Your task to perform on an android device: turn on location history Image 0: 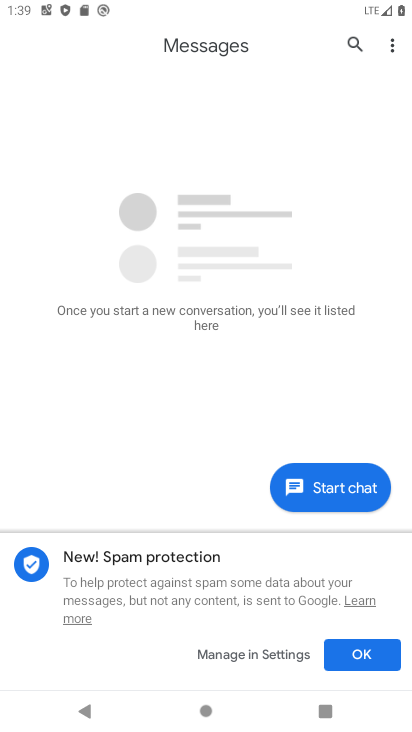
Step 0: press home button
Your task to perform on an android device: turn on location history Image 1: 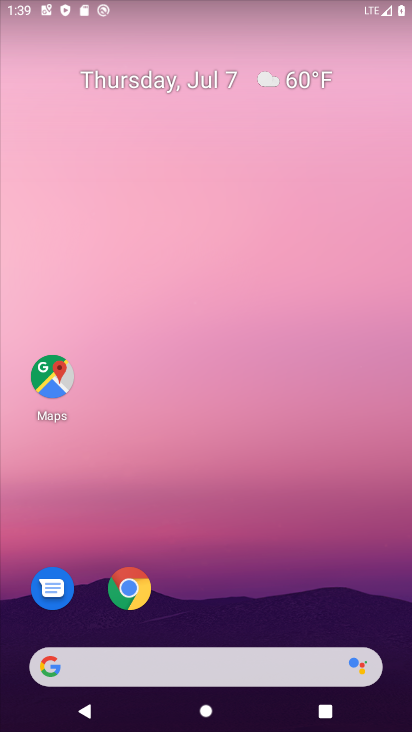
Step 1: drag from (247, 543) to (252, 150)
Your task to perform on an android device: turn on location history Image 2: 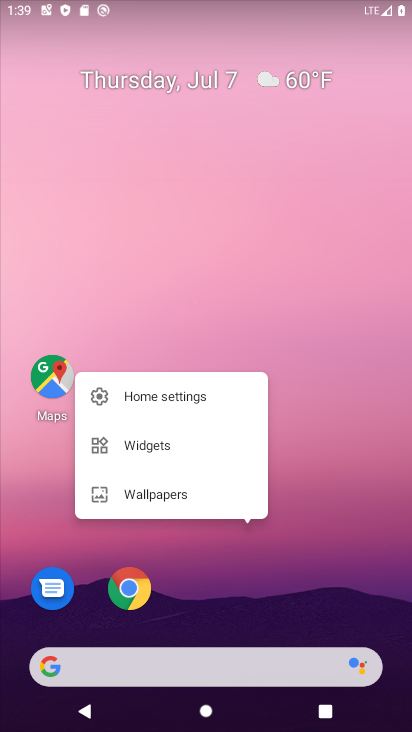
Step 2: click (379, 509)
Your task to perform on an android device: turn on location history Image 3: 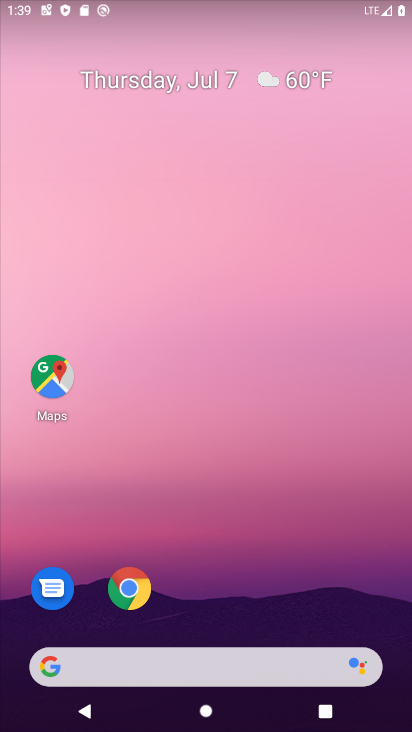
Step 3: drag from (264, 616) to (216, 206)
Your task to perform on an android device: turn on location history Image 4: 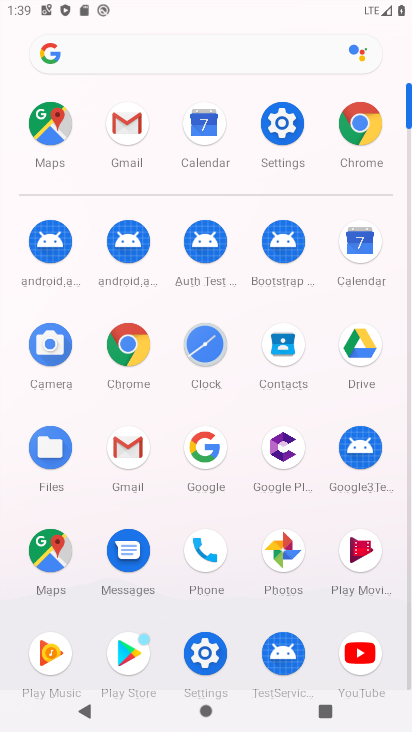
Step 4: click (269, 116)
Your task to perform on an android device: turn on location history Image 5: 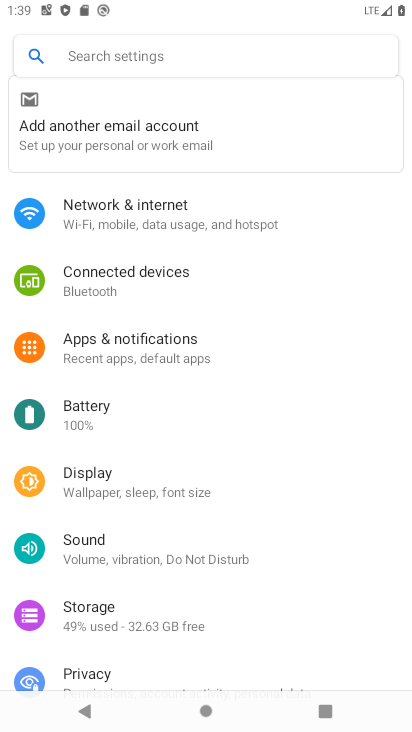
Step 5: drag from (164, 579) to (152, 309)
Your task to perform on an android device: turn on location history Image 6: 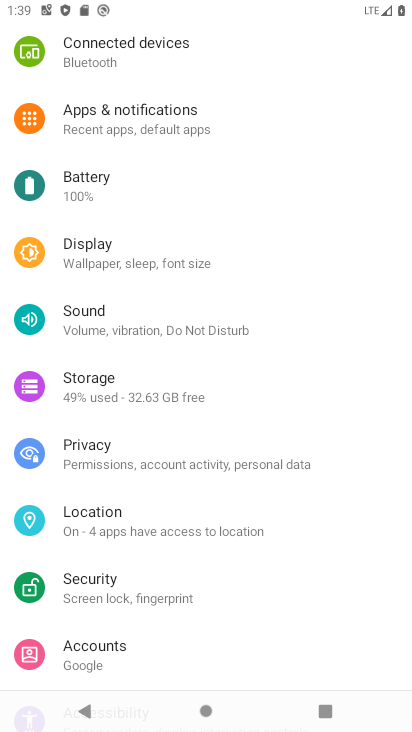
Step 6: click (121, 526)
Your task to perform on an android device: turn on location history Image 7: 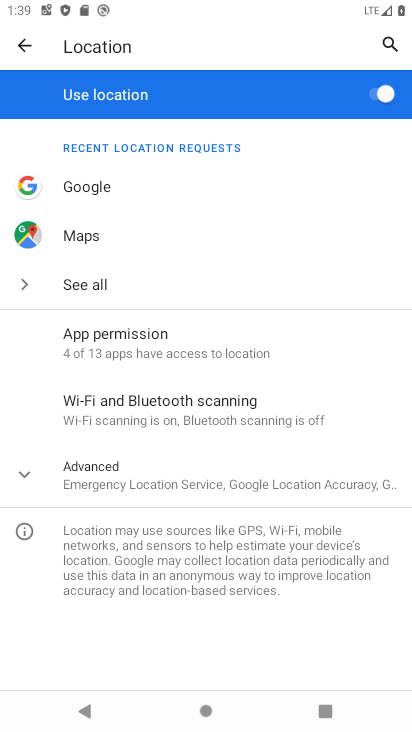
Step 7: task complete